Your task to perform on an android device: turn notification dots on Image 0: 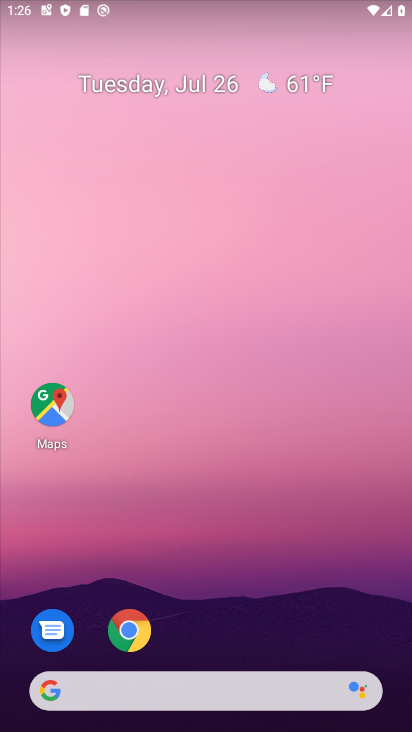
Step 0: drag from (214, 643) to (223, 78)
Your task to perform on an android device: turn notification dots on Image 1: 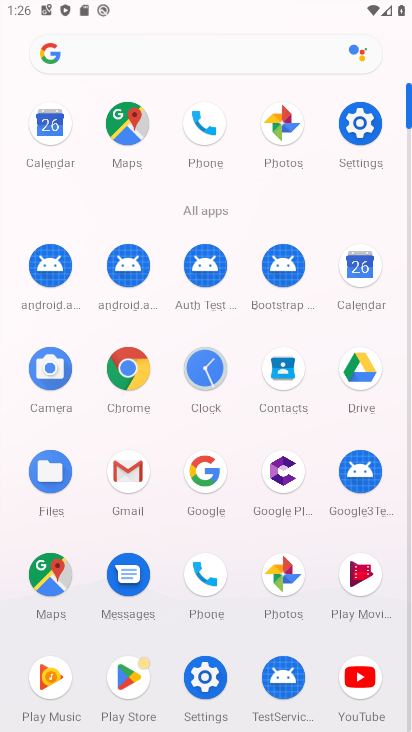
Step 1: click (199, 672)
Your task to perform on an android device: turn notification dots on Image 2: 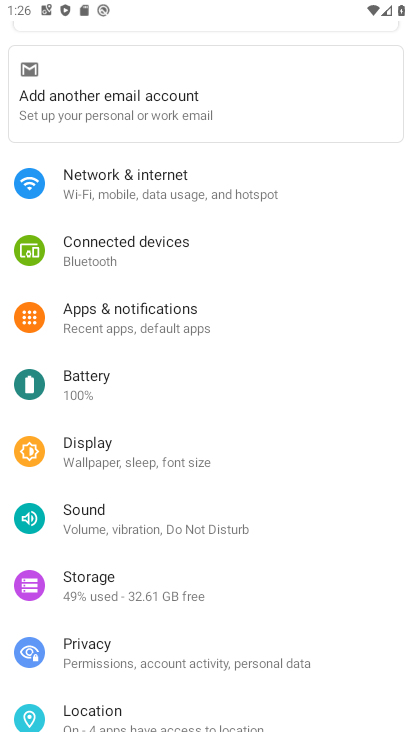
Step 2: click (199, 323)
Your task to perform on an android device: turn notification dots on Image 3: 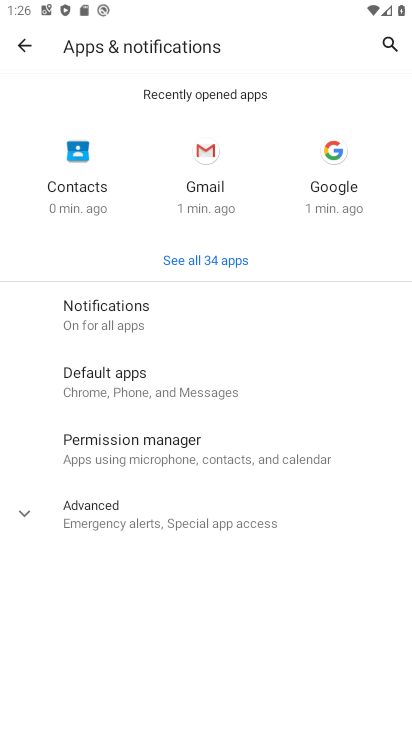
Step 3: click (153, 533)
Your task to perform on an android device: turn notification dots on Image 4: 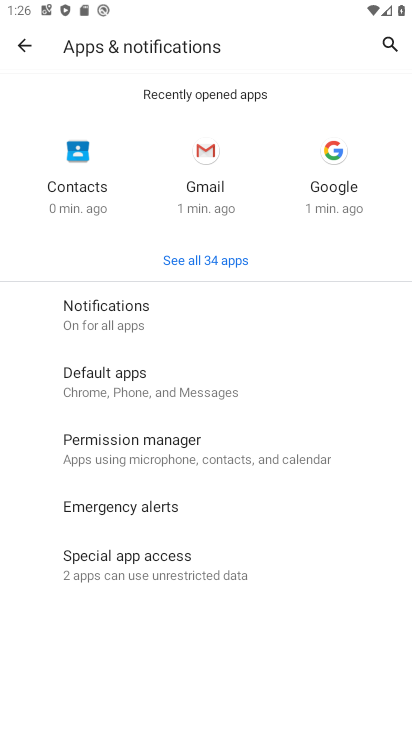
Step 4: click (163, 312)
Your task to perform on an android device: turn notification dots on Image 5: 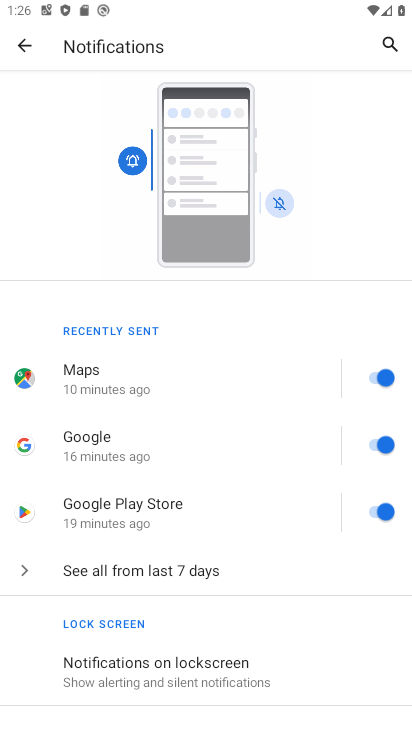
Step 5: drag from (185, 647) to (139, 371)
Your task to perform on an android device: turn notification dots on Image 6: 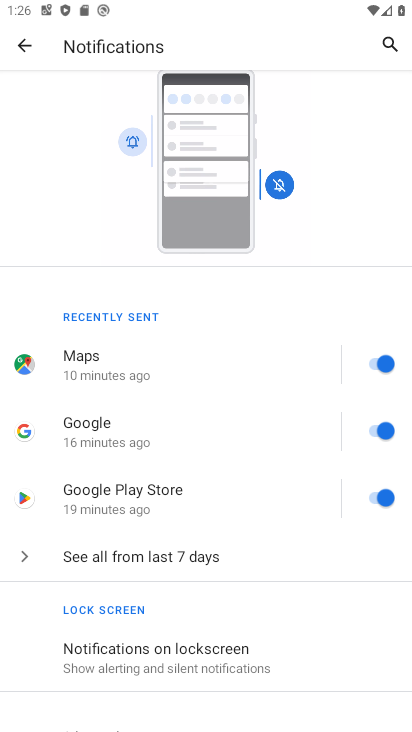
Step 6: drag from (253, 661) to (188, 187)
Your task to perform on an android device: turn notification dots on Image 7: 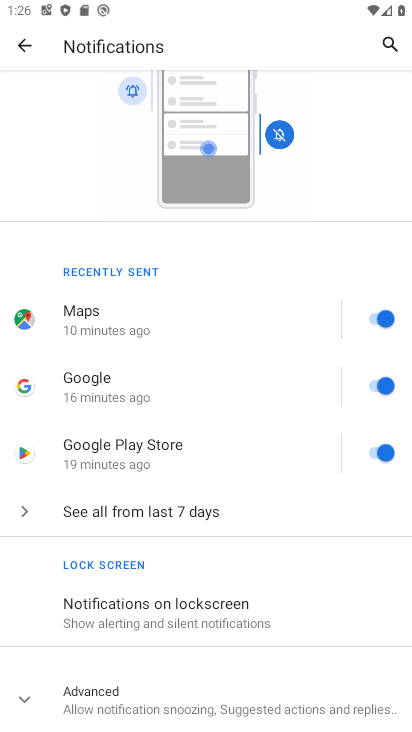
Step 7: click (245, 702)
Your task to perform on an android device: turn notification dots on Image 8: 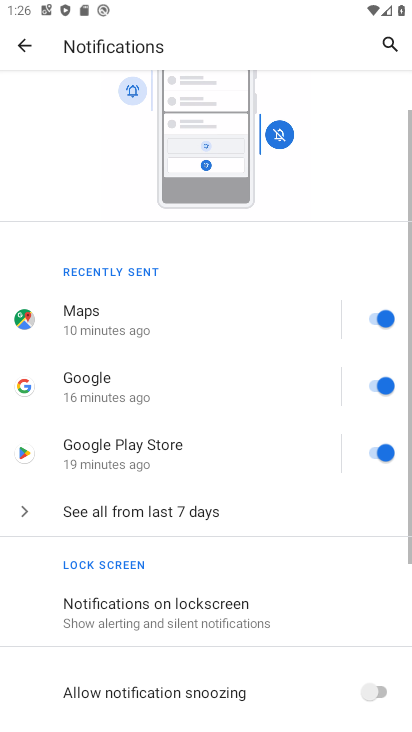
Step 8: drag from (245, 702) to (207, 395)
Your task to perform on an android device: turn notification dots on Image 9: 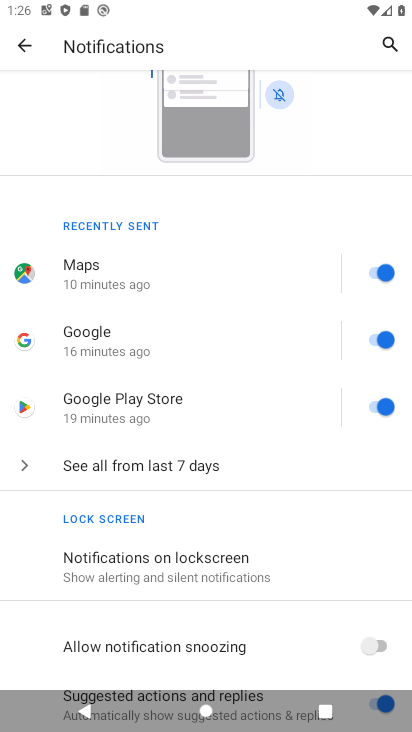
Step 9: click (180, 224)
Your task to perform on an android device: turn notification dots on Image 10: 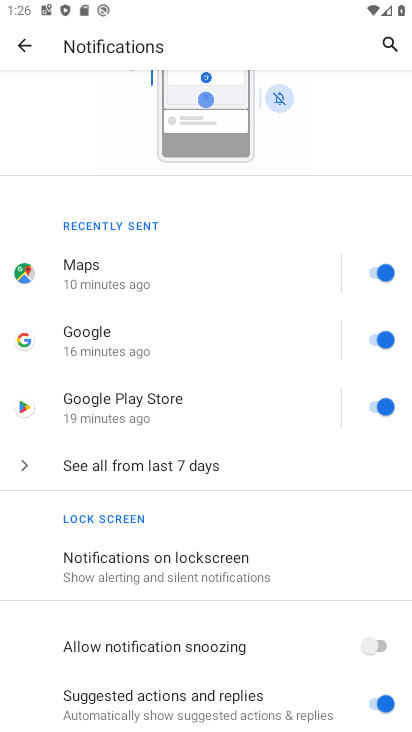
Step 10: task complete